Your task to perform on an android device: install app "Google Home" Image 0: 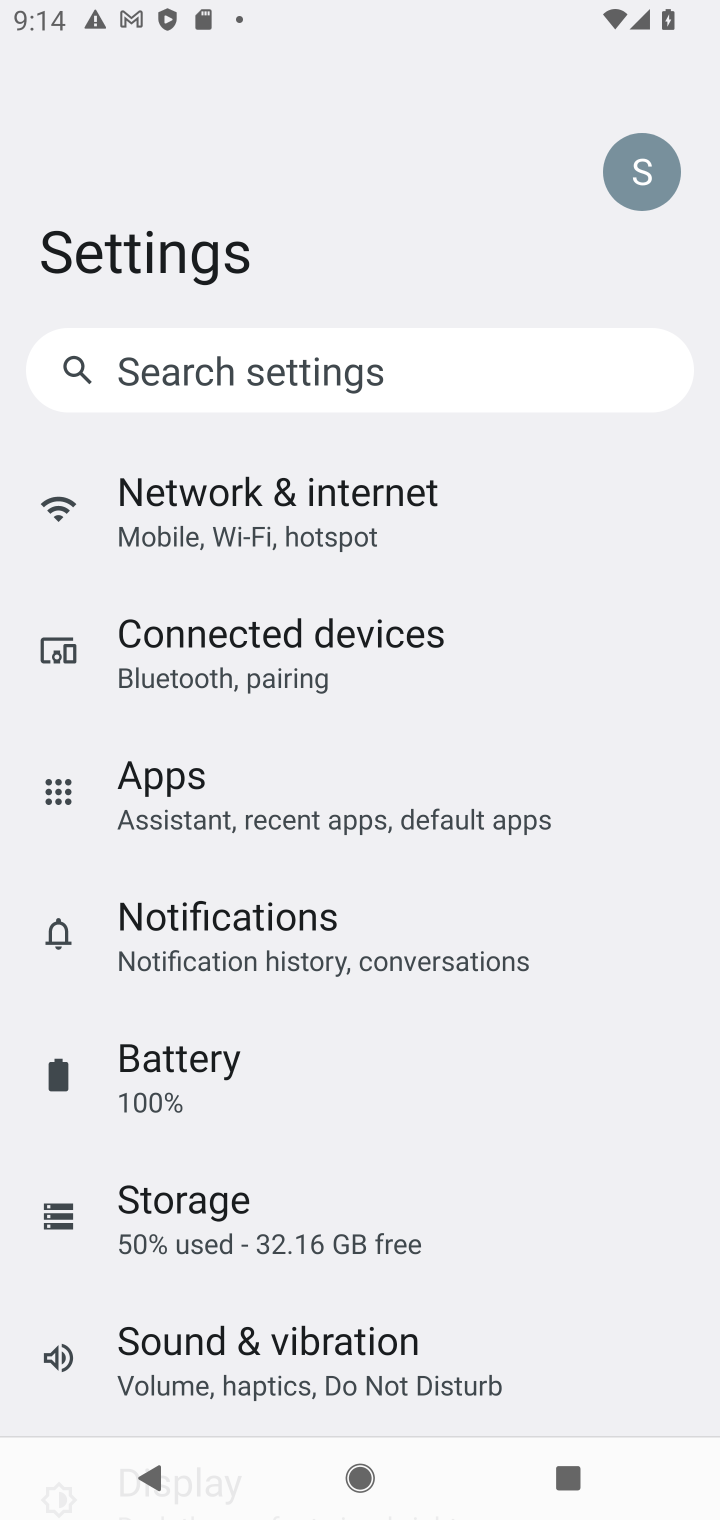
Step 0: press home button
Your task to perform on an android device: install app "Google Home" Image 1: 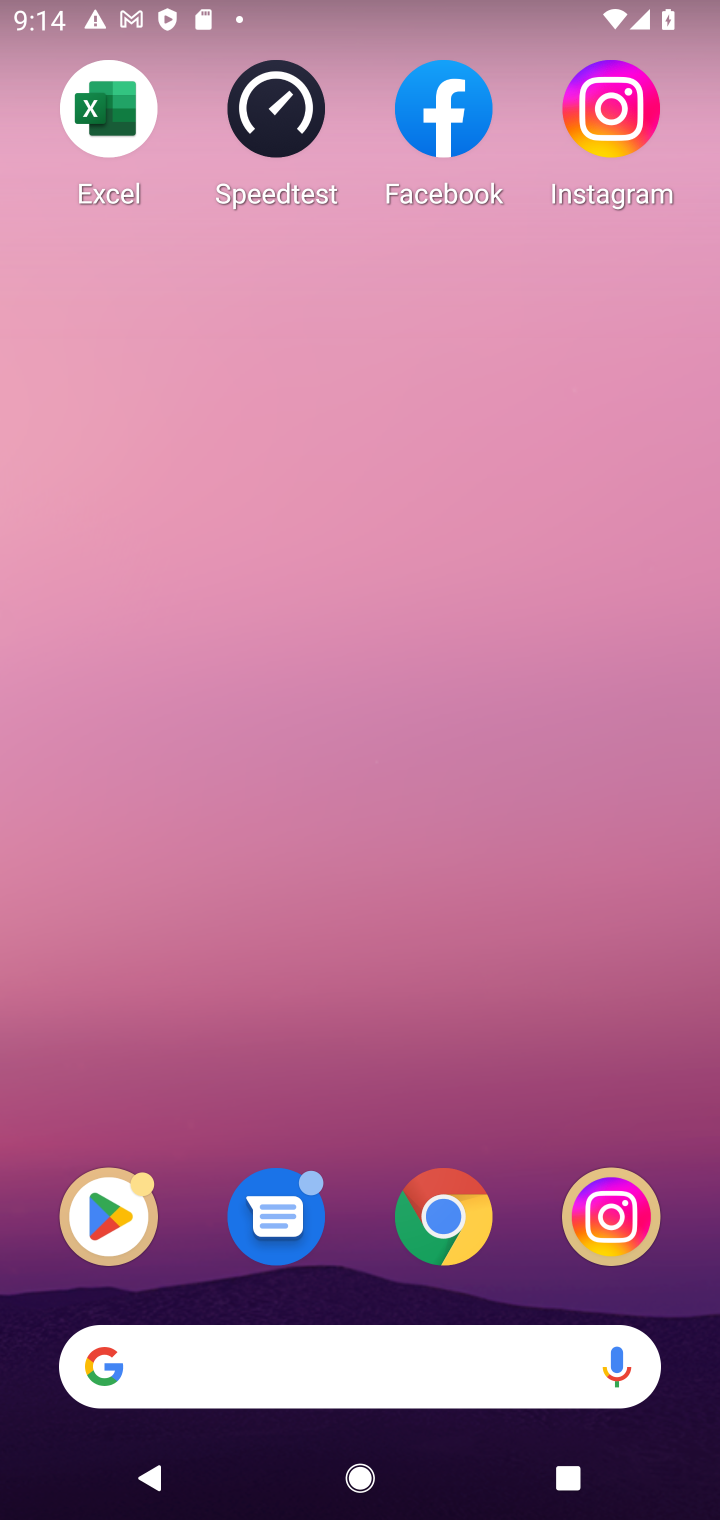
Step 1: click (119, 1219)
Your task to perform on an android device: install app "Google Home" Image 2: 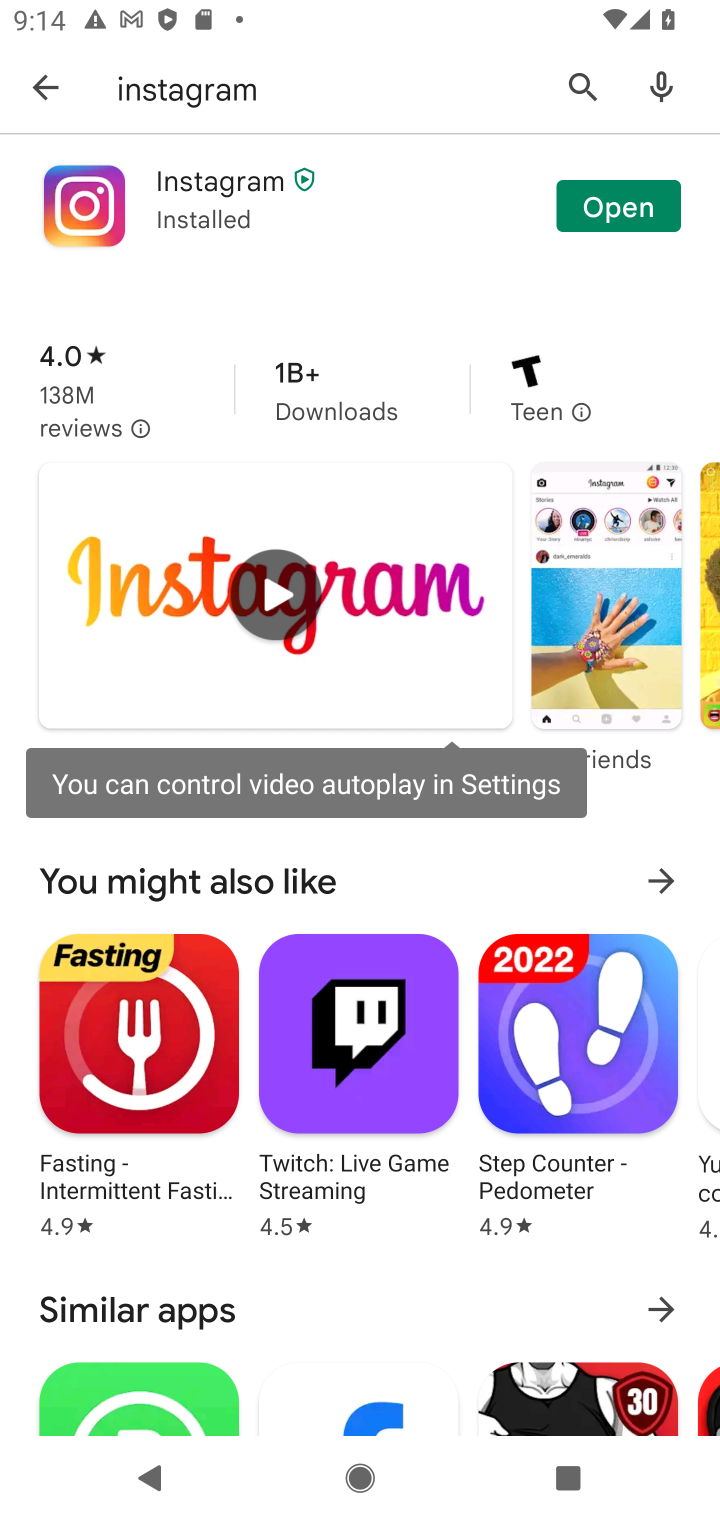
Step 2: click (577, 83)
Your task to perform on an android device: install app "Google Home" Image 3: 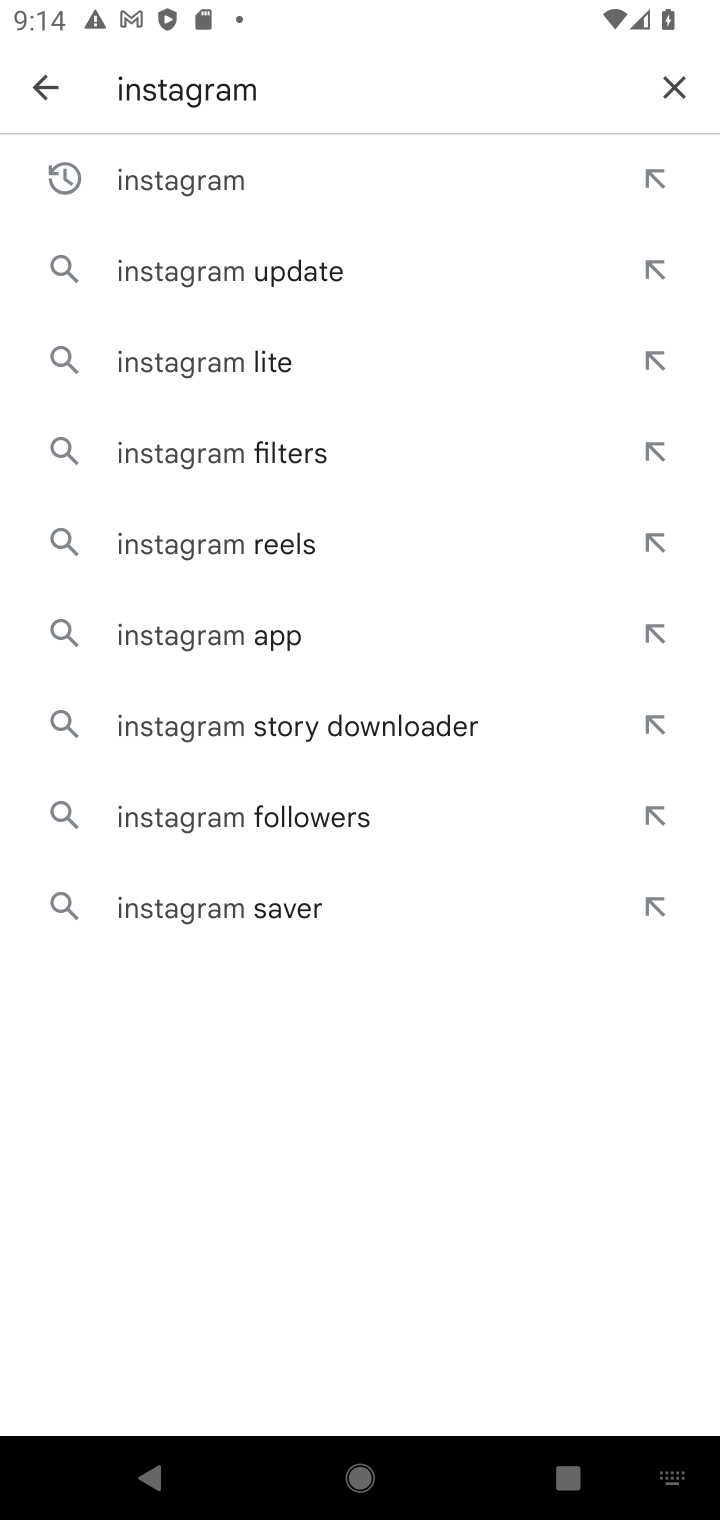
Step 3: click (662, 91)
Your task to perform on an android device: install app "Google Home" Image 4: 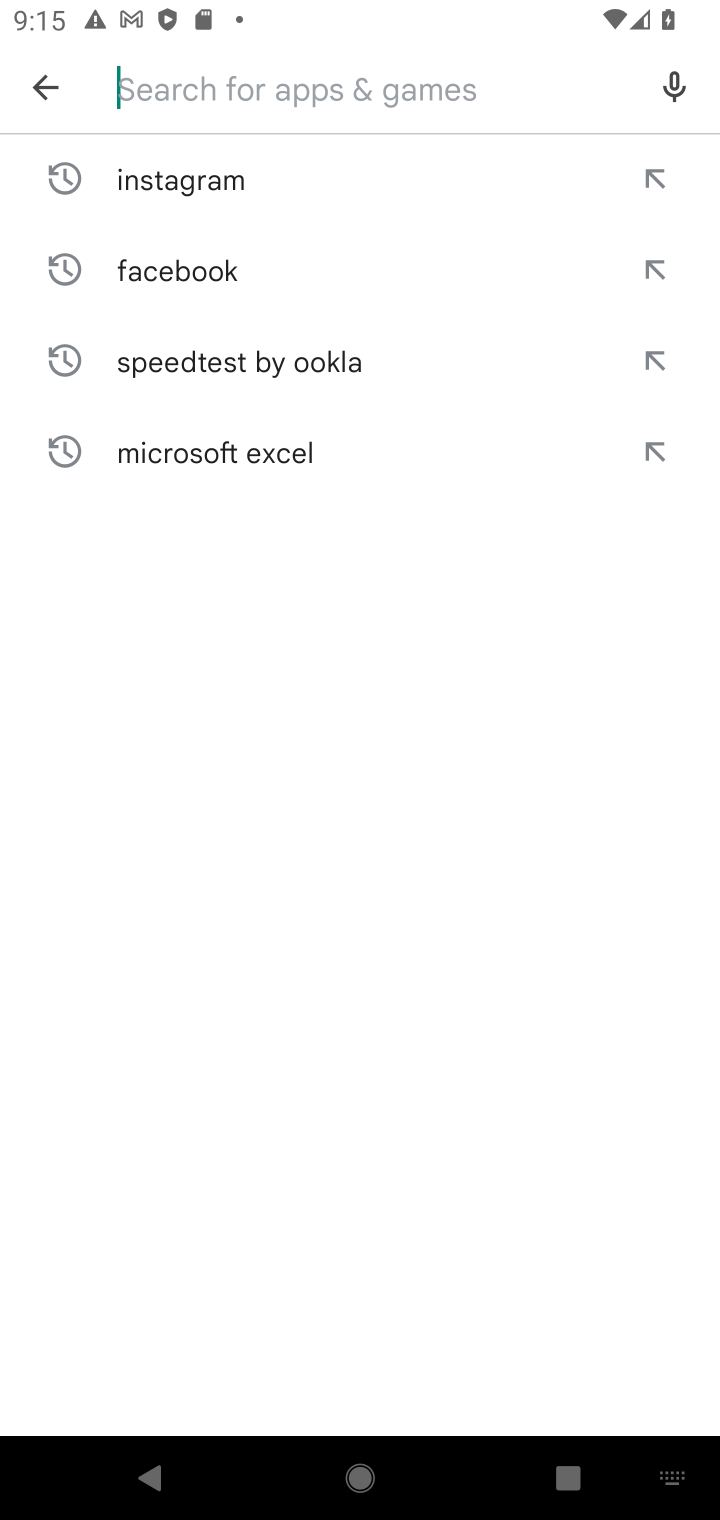
Step 4: type "Google Home"
Your task to perform on an android device: install app "Google Home" Image 5: 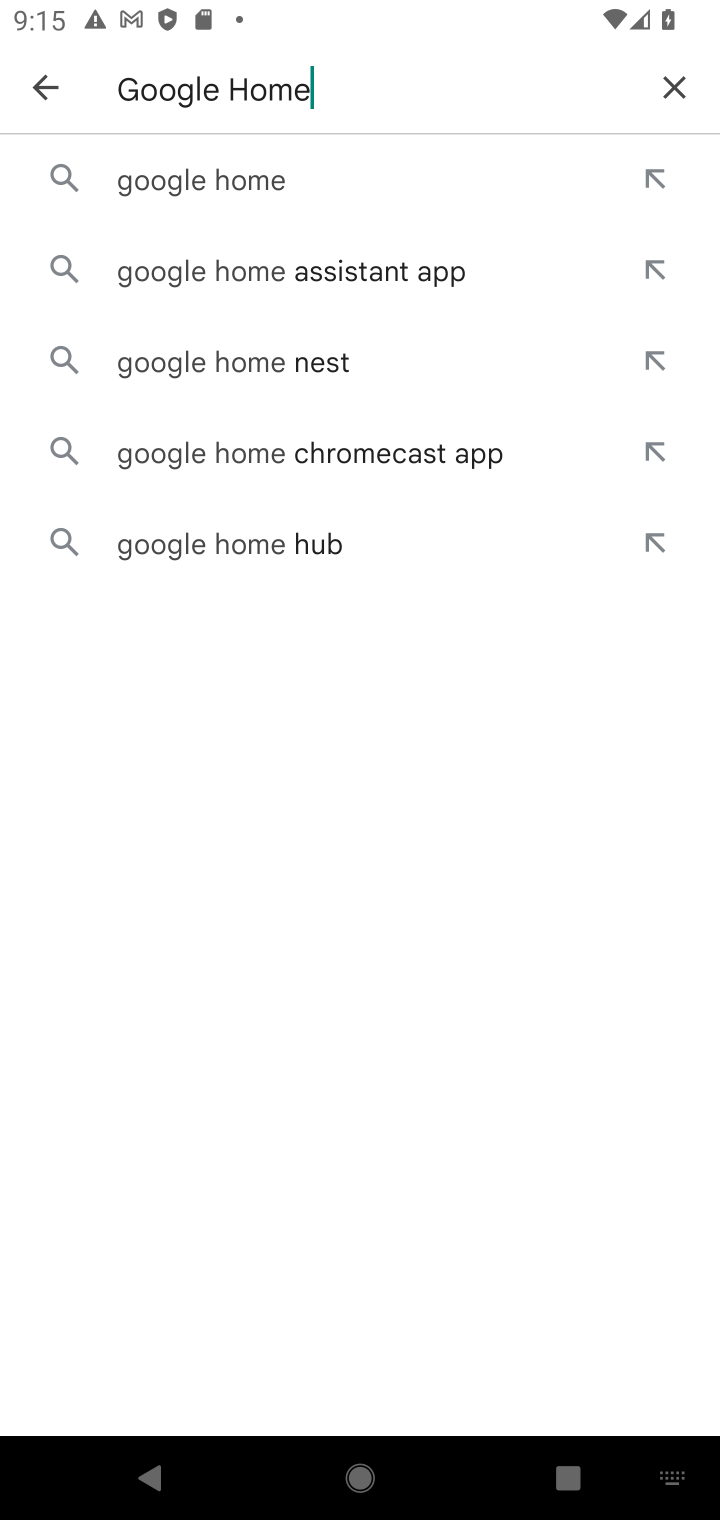
Step 5: click (204, 190)
Your task to perform on an android device: install app "Google Home" Image 6: 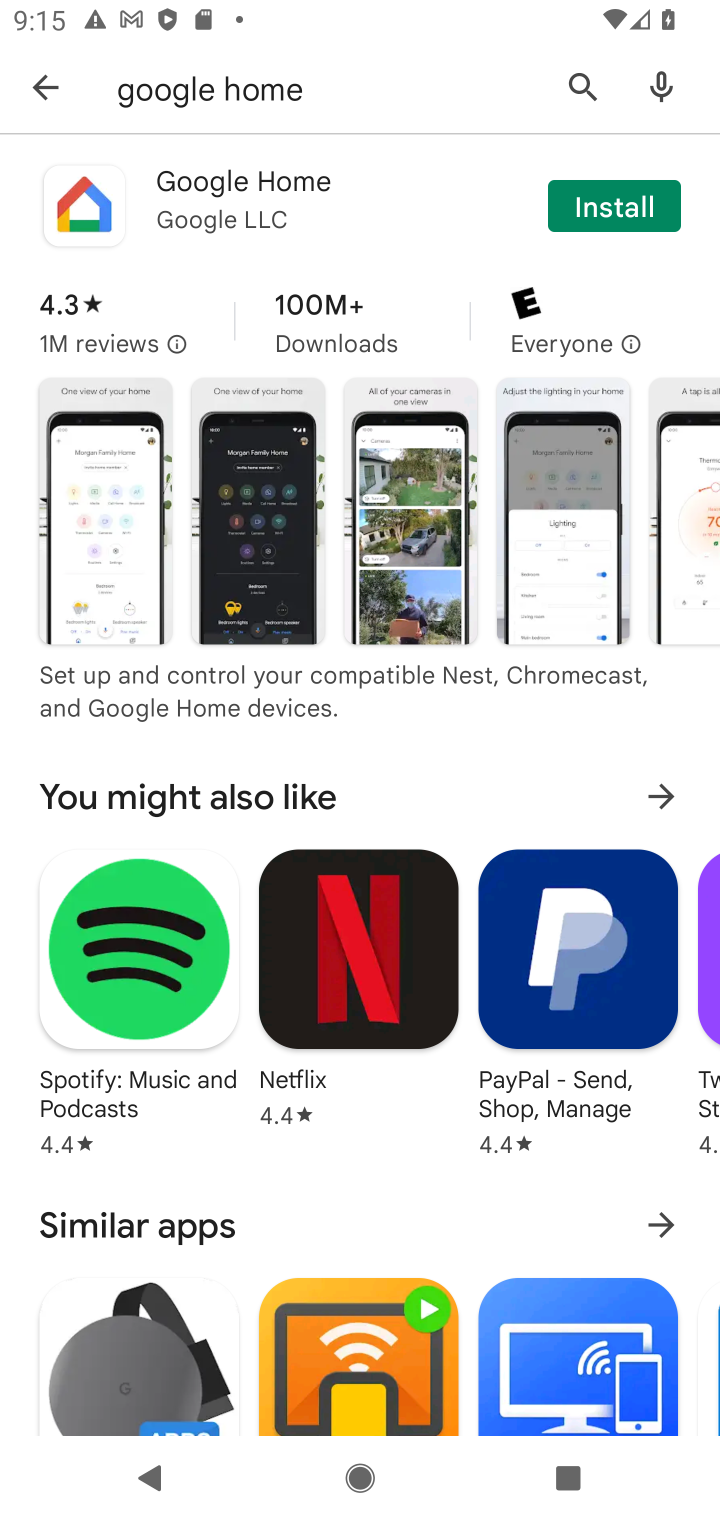
Step 6: click (632, 212)
Your task to perform on an android device: install app "Google Home" Image 7: 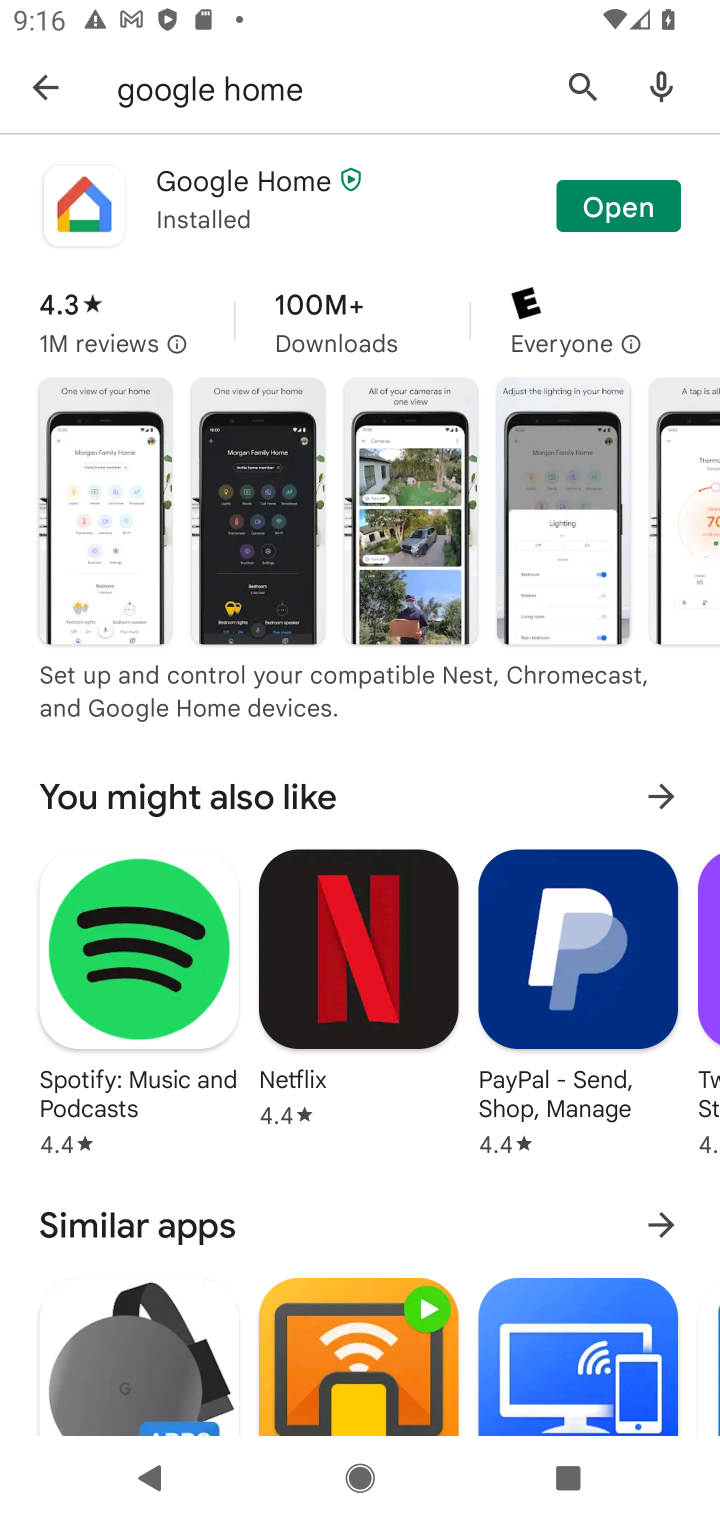
Step 7: task complete